Your task to perform on an android device: Open Android settings Image 0: 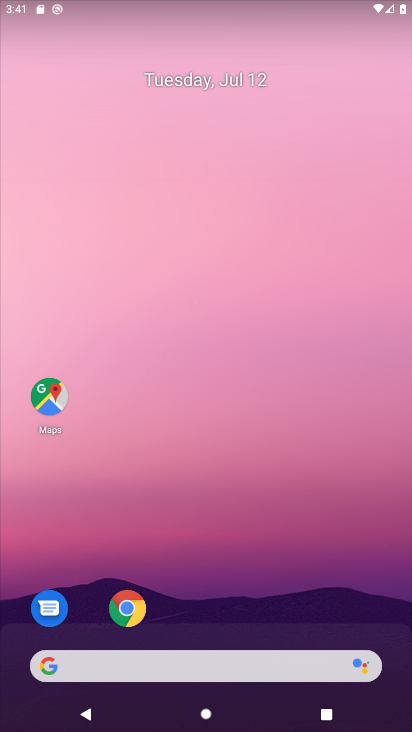
Step 0: drag from (236, 643) to (402, 110)
Your task to perform on an android device: Open Android settings Image 1: 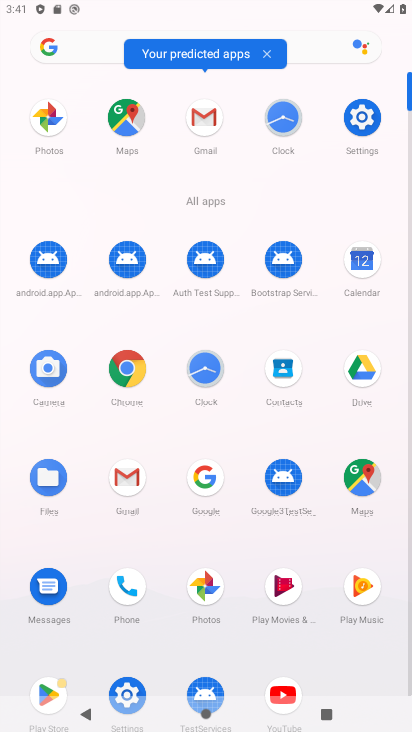
Step 1: click (124, 685)
Your task to perform on an android device: Open Android settings Image 2: 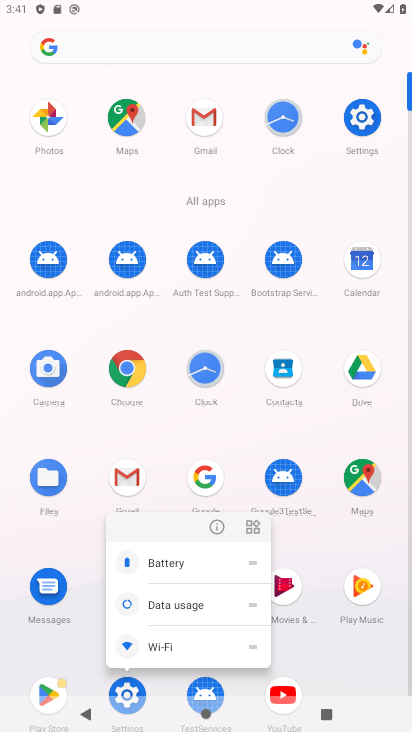
Step 2: click (109, 692)
Your task to perform on an android device: Open Android settings Image 3: 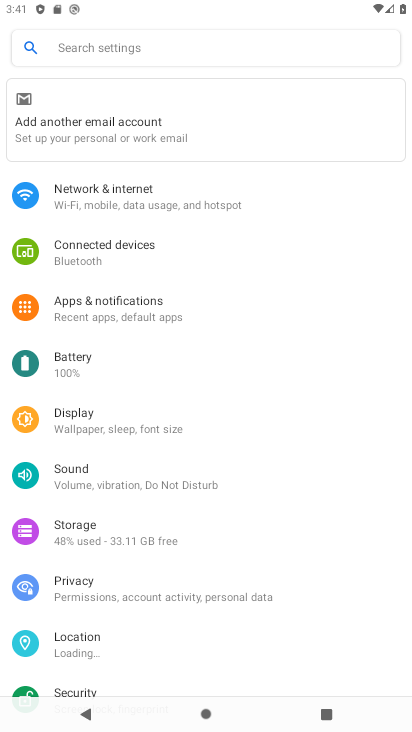
Step 3: task complete